Your task to perform on an android device: open sync settings in chrome Image 0: 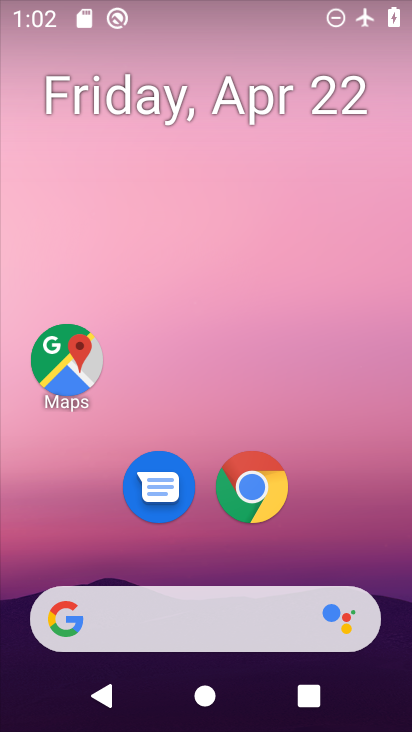
Step 0: click (257, 477)
Your task to perform on an android device: open sync settings in chrome Image 1: 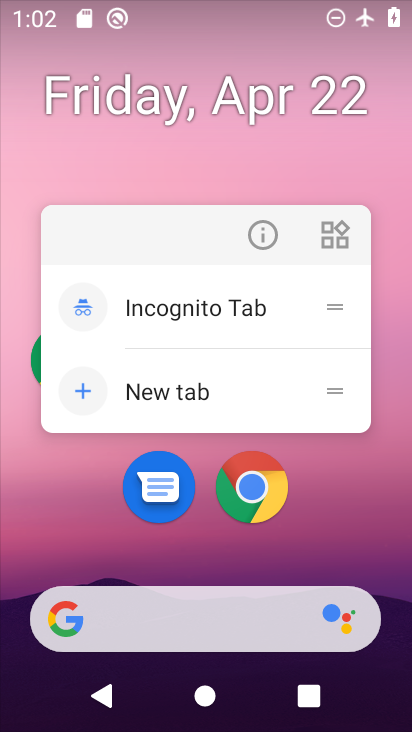
Step 1: click (241, 509)
Your task to perform on an android device: open sync settings in chrome Image 2: 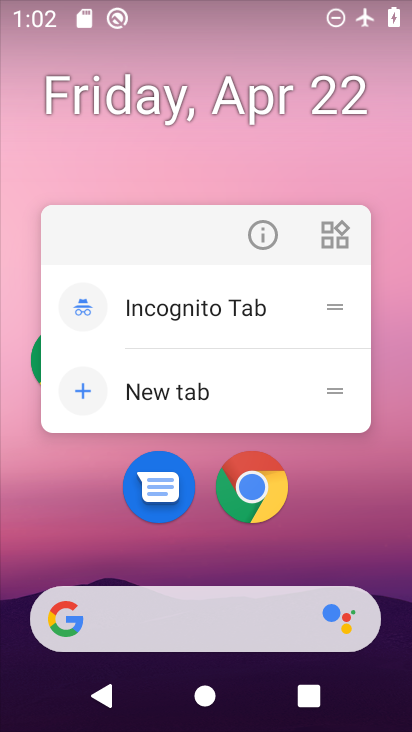
Step 2: click (245, 501)
Your task to perform on an android device: open sync settings in chrome Image 3: 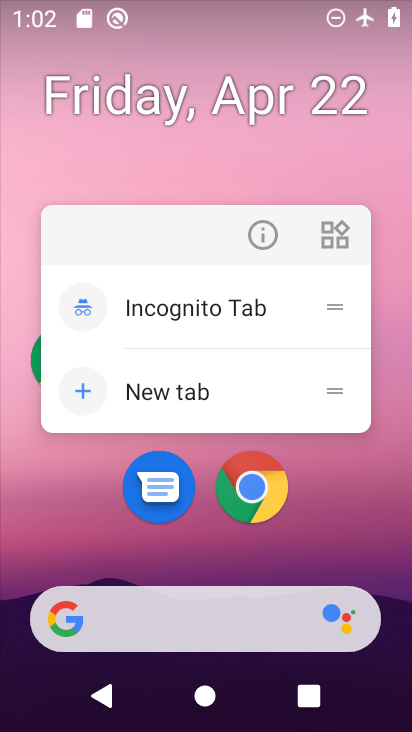
Step 3: click (246, 493)
Your task to perform on an android device: open sync settings in chrome Image 4: 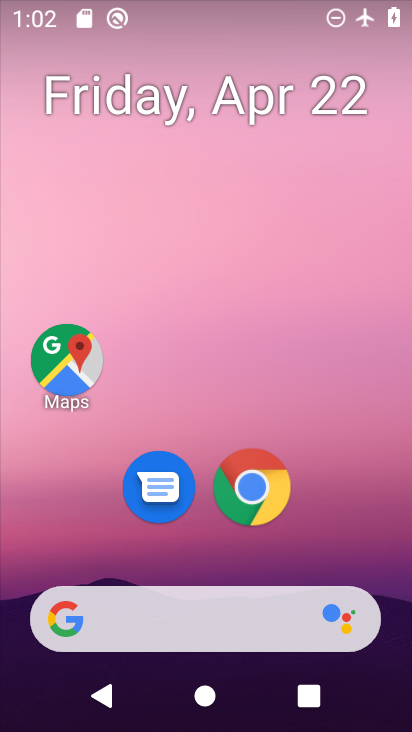
Step 4: click (243, 497)
Your task to perform on an android device: open sync settings in chrome Image 5: 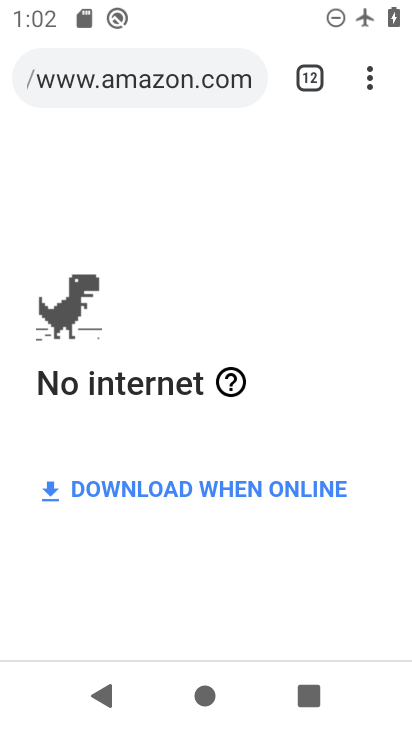
Step 5: click (365, 72)
Your task to perform on an android device: open sync settings in chrome Image 6: 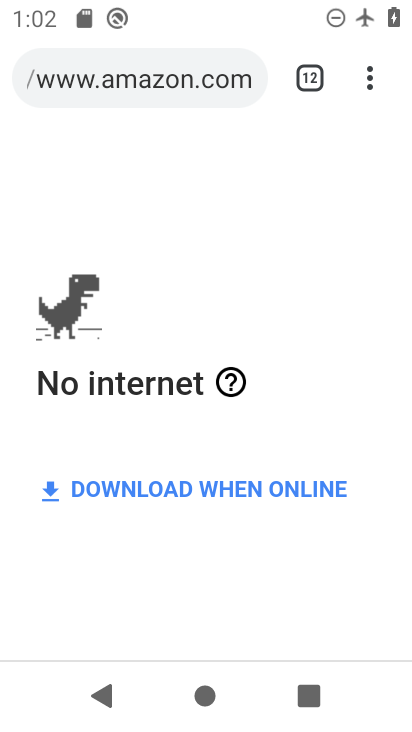
Step 6: click (360, 82)
Your task to perform on an android device: open sync settings in chrome Image 7: 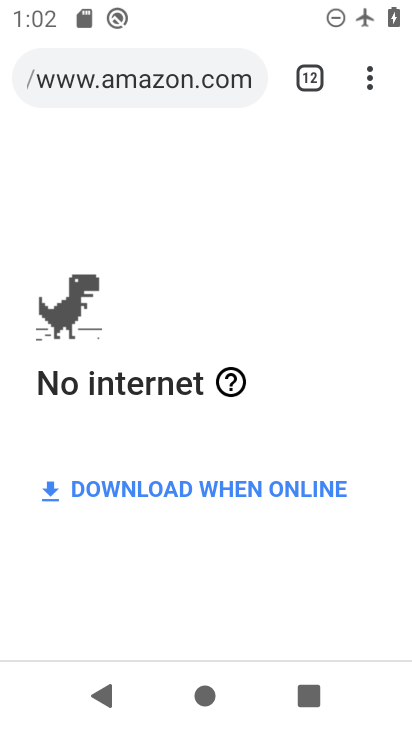
Step 7: click (354, 69)
Your task to perform on an android device: open sync settings in chrome Image 8: 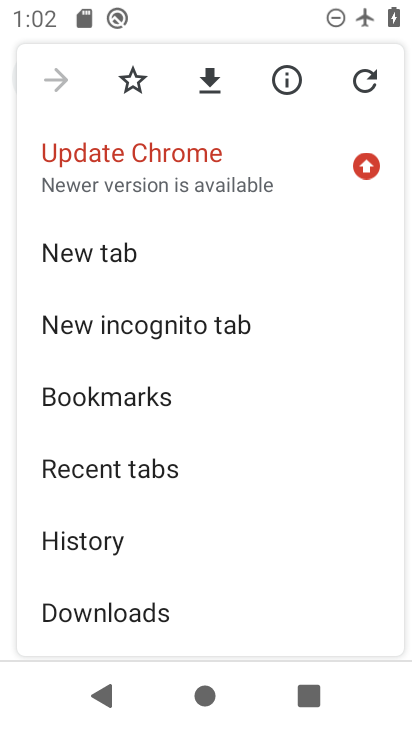
Step 8: drag from (229, 587) to (277, 99)
Your task to perform on an android device: open sync settings in chrome Image 9: 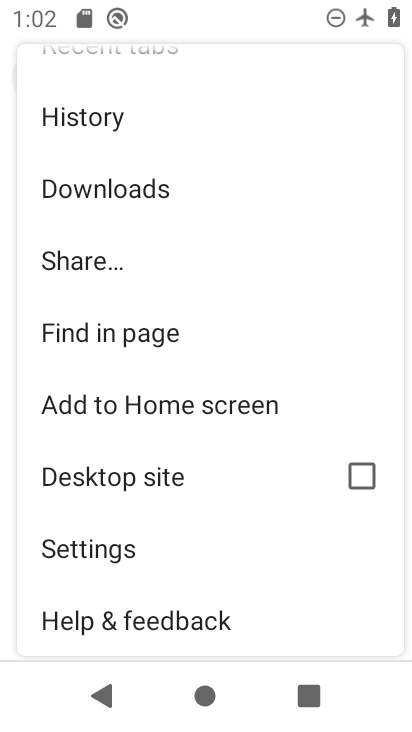
Step 9: click (145, 531)
Your task to perform on an android device: open sync settings in chrome Image 10: 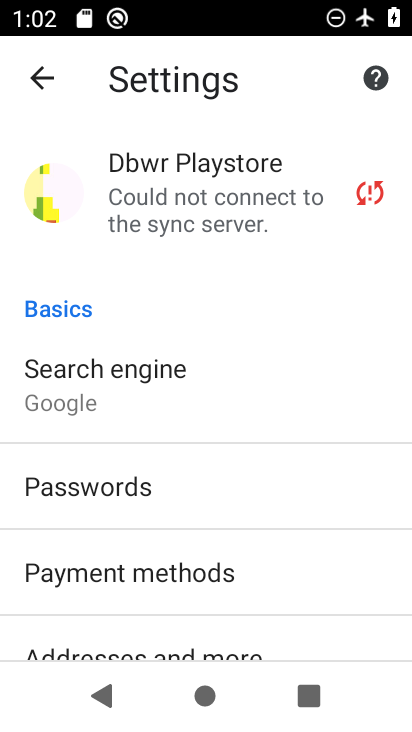
Step 10: click (222, 196)
Your task to perform on an android device: open sync settings in chrome Image 11: 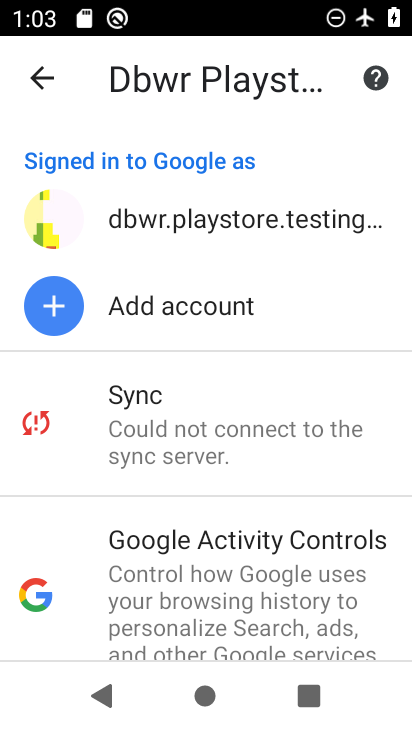
Step 11: task complete